Your task to perform on an android device: Open accessibility settings Image 0: 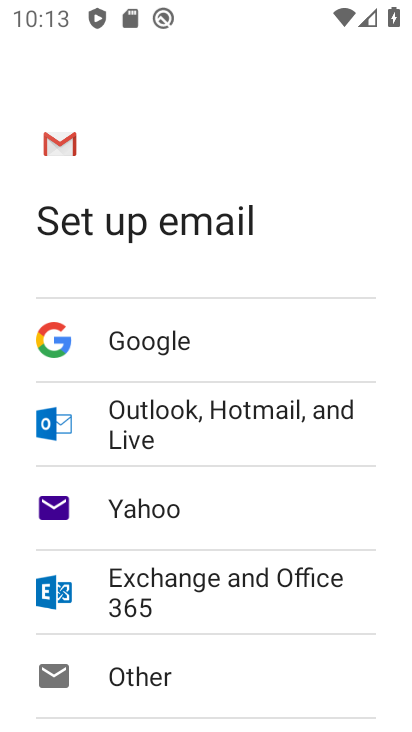
Step 0: press home button
Your task to perform on an android device: Open accessibility settings Image 1: 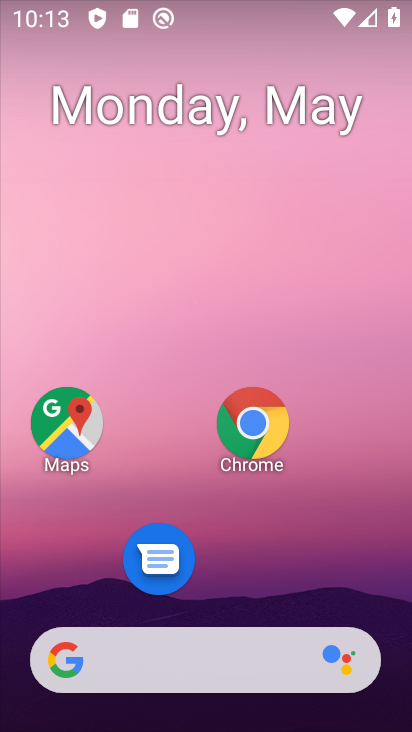
Step 1: drag from (139, 368) to (204, 91)
Your task to perform on an android device: Open accessibility settings Image 2: 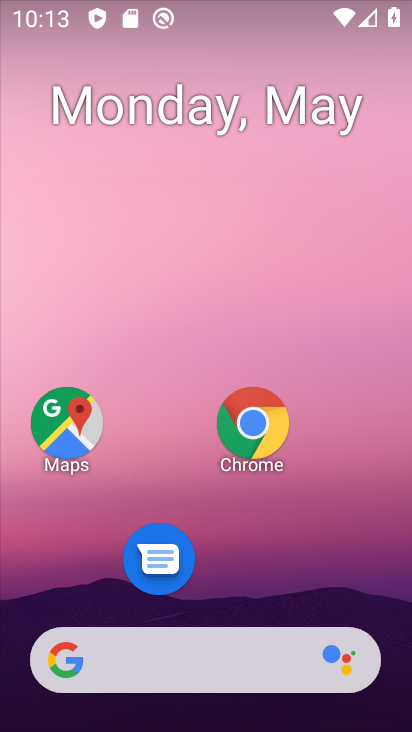
Step 2: drag from (101, 599) to (206, 29)
Your task to perform on an android device: Open accessibility settings Image 3: 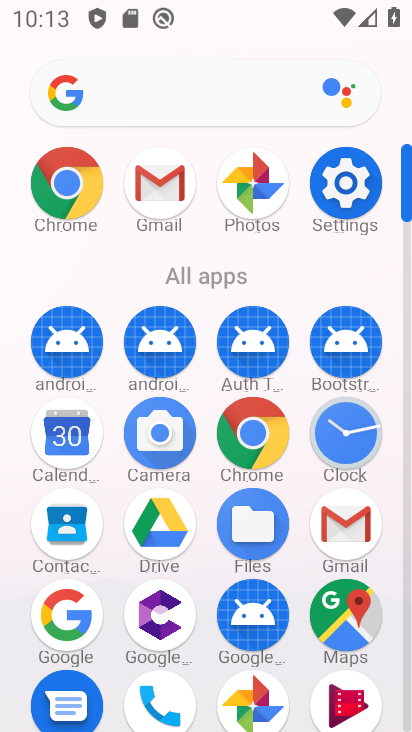
Step 3: click (333, 198)
Your task to perform on an android device: Open accessibility settings Image 4: 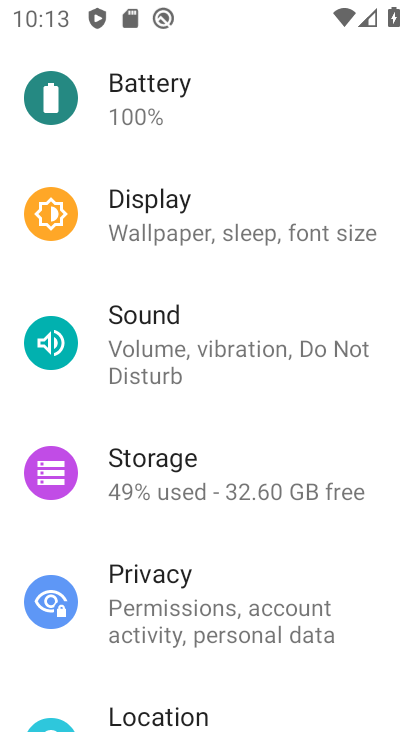
Step 4: drag from (99, 657) to (191, 117)
Your task to perform on an android device: Open accessibility settings Image 5: 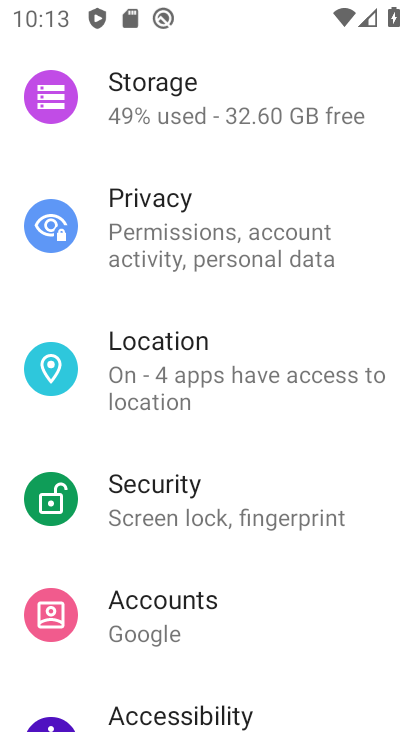
Step 5: click (160, 720)
Your task to perform on an android device: Open accessibility settings Image 6: 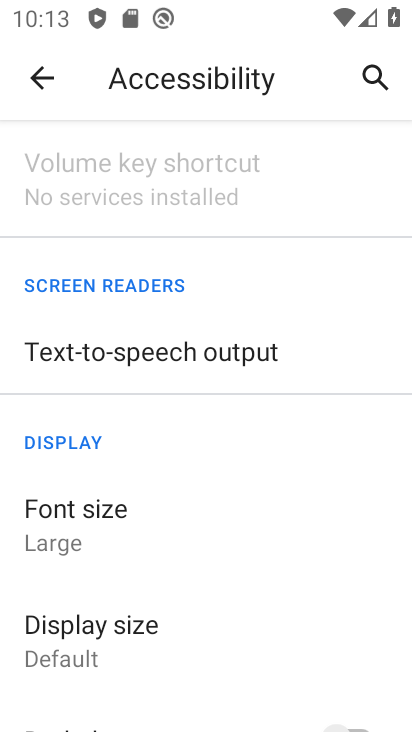
Step 6: task complete